Your task to perform on an android device: Open Google Image 0: 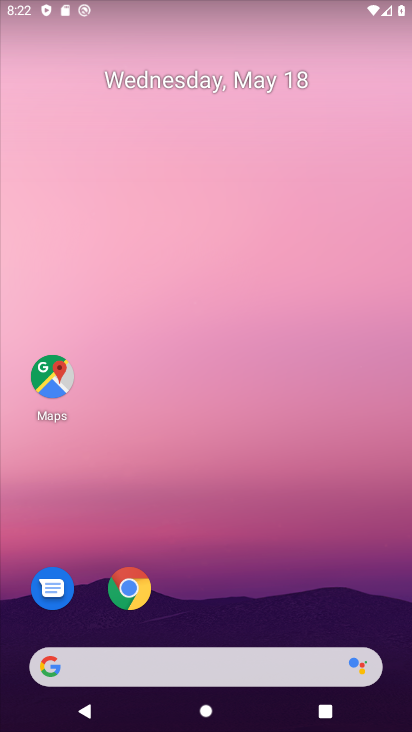
Step 0: drag from (231, 566) to (242, 237)
Your task to perform on an android device: Open Google Image 1: 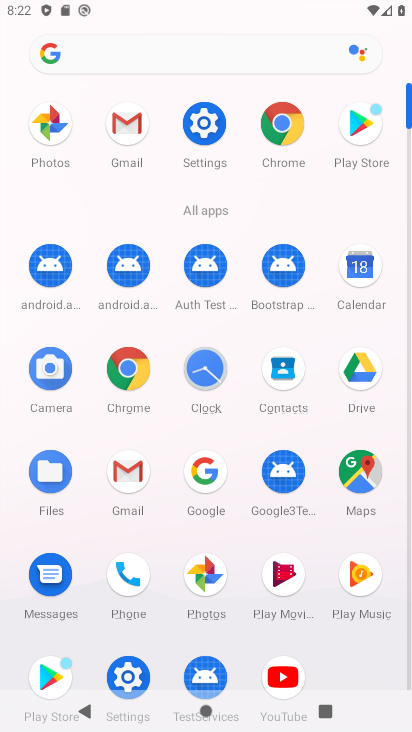
Step 1: click (203, 469)
Your task to perform on an android device: Open Google Image 2: 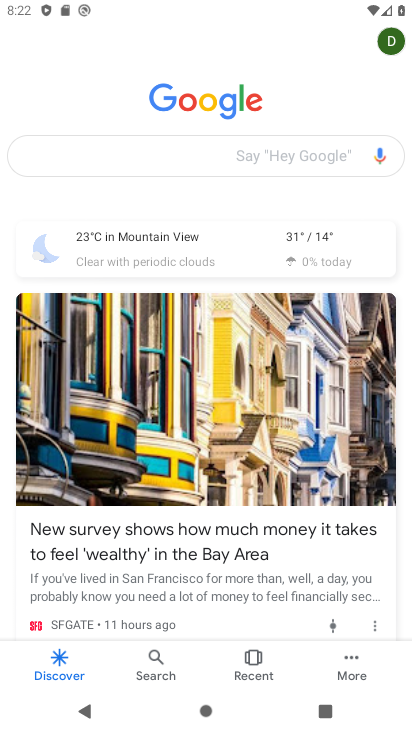
Step 2: task complete